Your task to perform on an android device: Open settings on Google Maps Image 0: 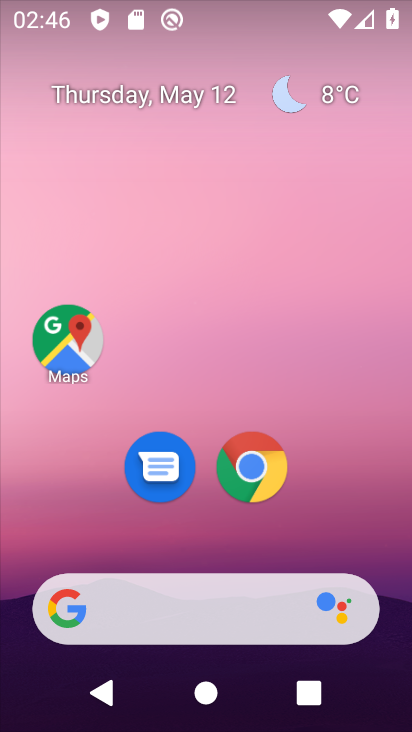
Step 0: drag from (372, 550) to (332, 61)
Your task to perform on an android device: Open settings on Google Maps Image 1: 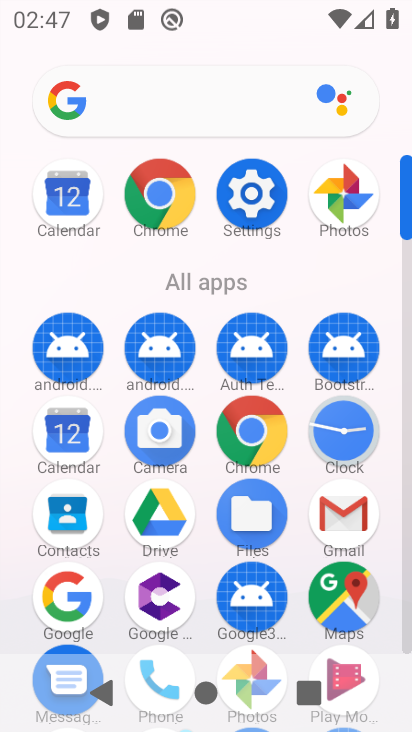
Step 1: click (243, 190)
Your task to perform on an android device: Open settings on Google Maps Image 2: 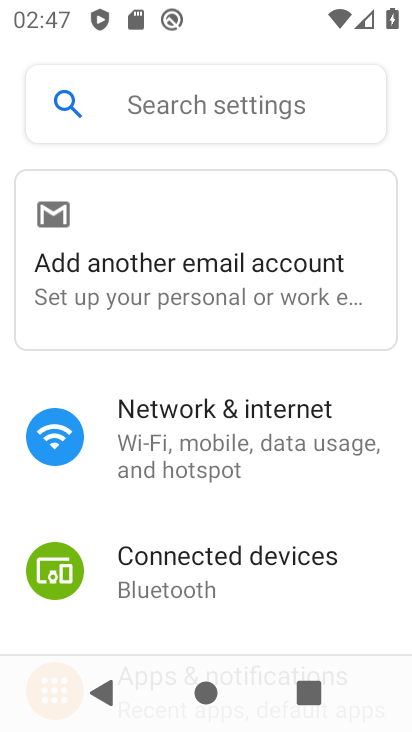
Step 2: drag from (222, 593) to (210, 302)
Your task to perform on an android device: Open settings on Google Maps Image 3: 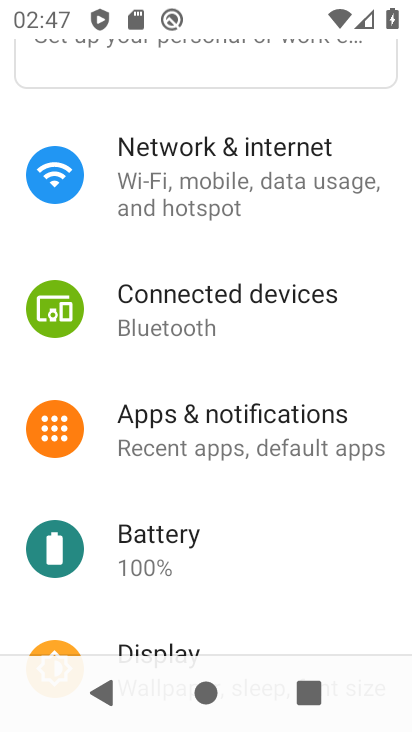
Step 3: press home button
Your task to perform on an android device: Open settings on Google Maps Image 4: 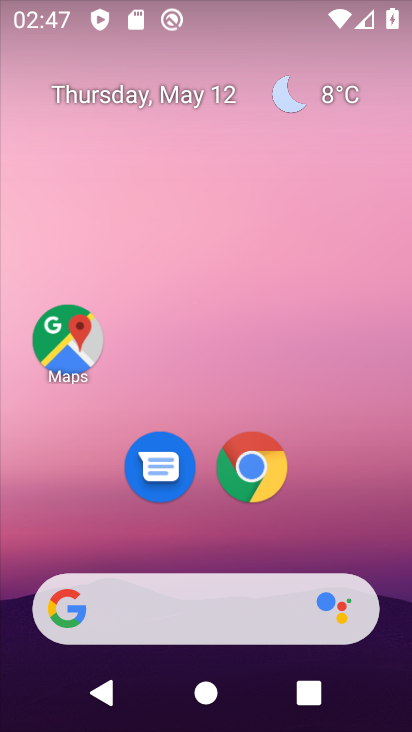
Step 4: drag from (368, 540) to (353, 3)
Your task to perform on an android device: Open settings on Google Maps Image 5: 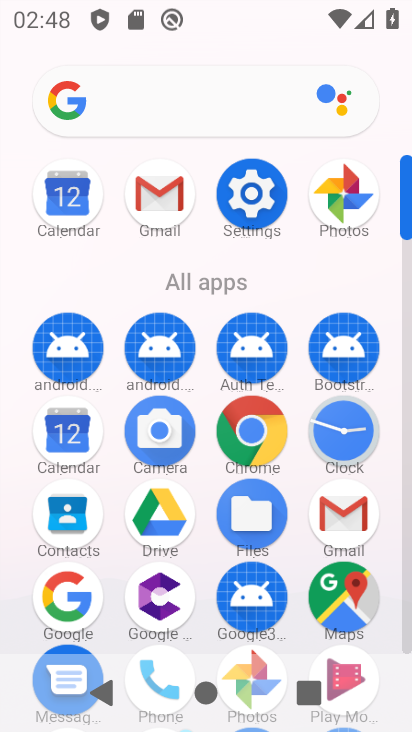
Step 5: click (330, 589)
Your task to perform on an android device: Open settings on Google Maps Image 6: 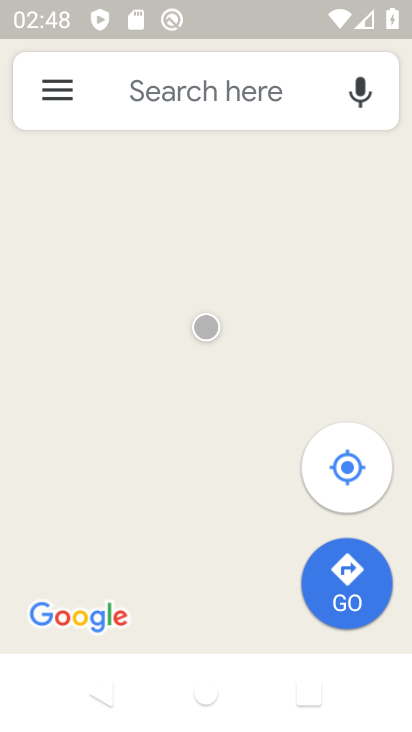
Step 6: click (67, 97)
Your task to perform on an android device: Open settings on Google Maps Image 7: 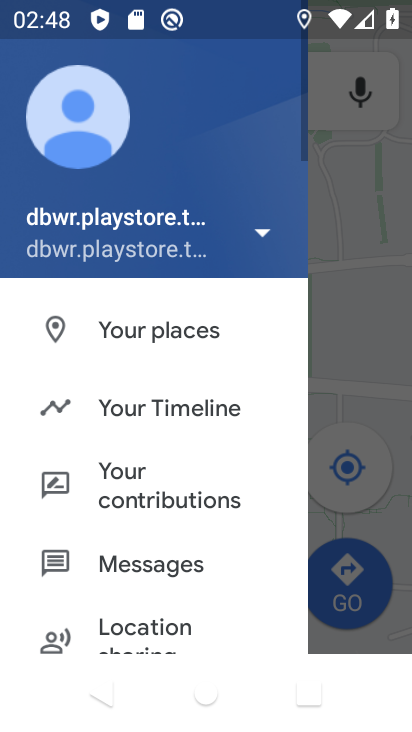
Step 7: drag from (143, 585) to (163, 124)
Your task to perform on an android device: Open settings on Google Maps Image 8: 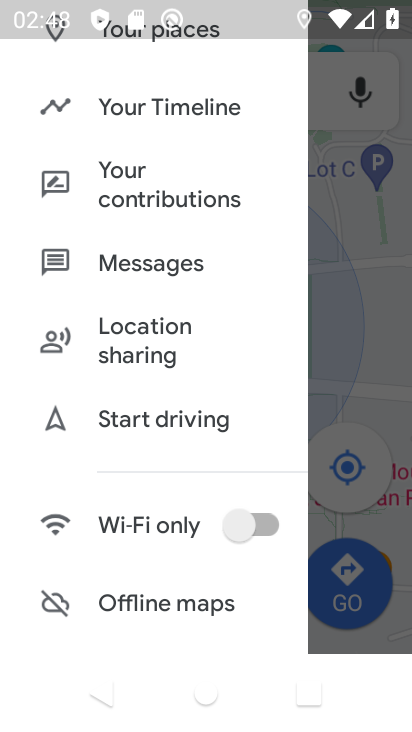
Step 8: drag from (138, 539) to (148, 143)
Your task to perform on an android device: Open settings on Google Maps Image 9: 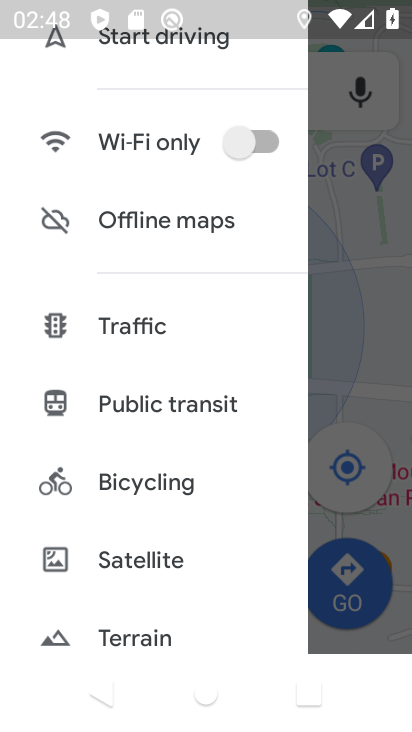
Step 9: drag from (150, 539) to (176, 141)
Your task to perform on an android device: Open settings on Google Maps Image 10: 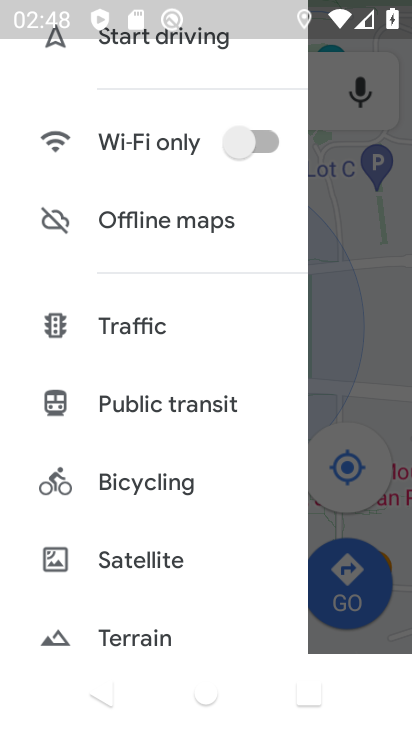
Step 10: drag from (182, 583) to (254, 132)
Your task to perform on an android device: Open settings on Google Maps Image 11: 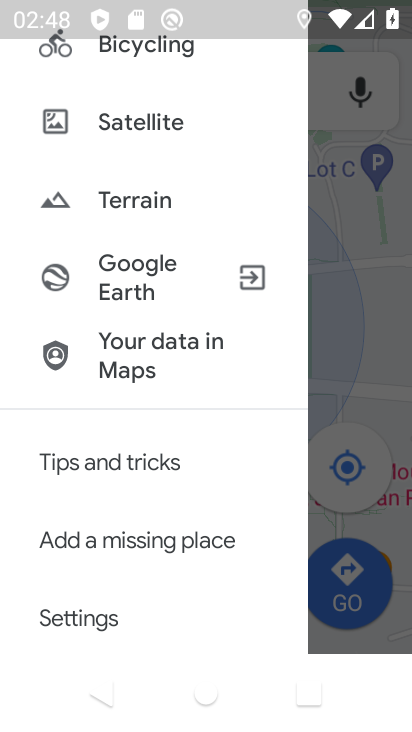
Step 11: click (117, 609)
Your task to perform on an android device: Open settings on Google Maps Image 12: 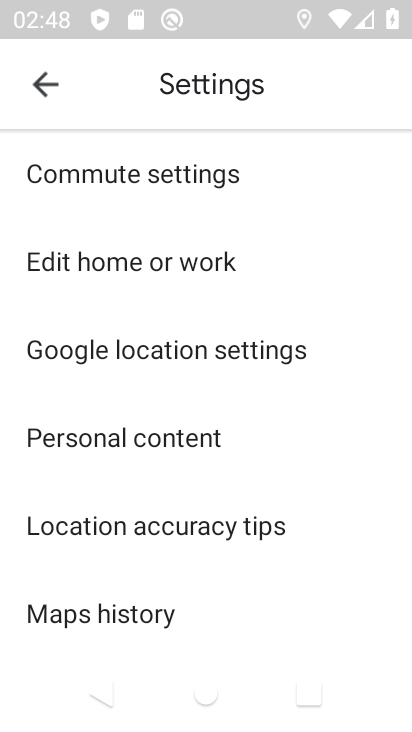
Step 12: task complete